Your task to perform on an android device: change the clock display to show seconds Image 0: 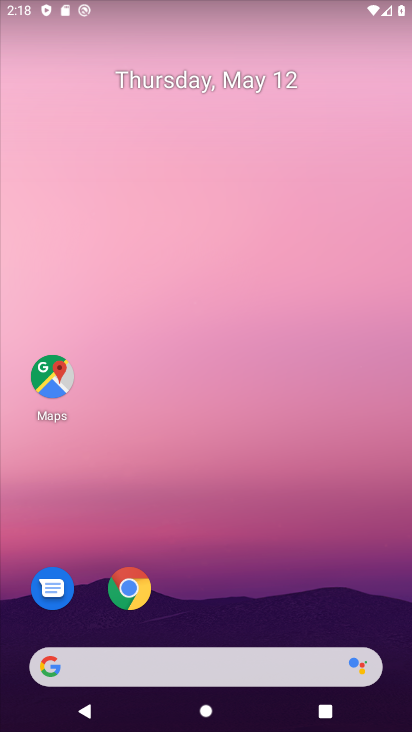
Step 0: drag from (286, 513) to (308, 0)
Your task to perform on an android device: change the clock display to show seconds Image 1: 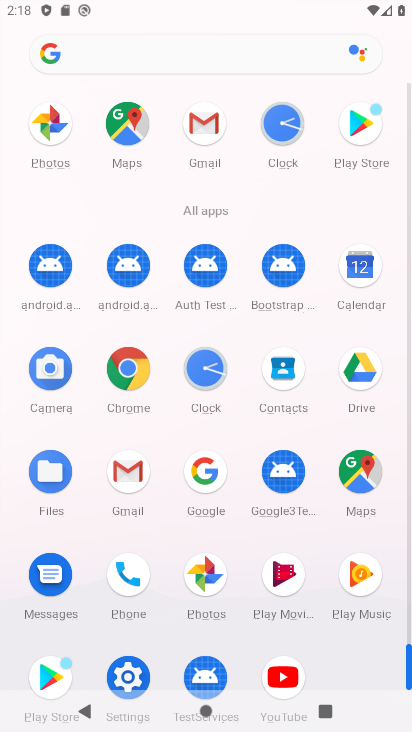
Step 1: click (281, 244)
Your task to perform on an android device: change the clock display to show seconds Image 2: 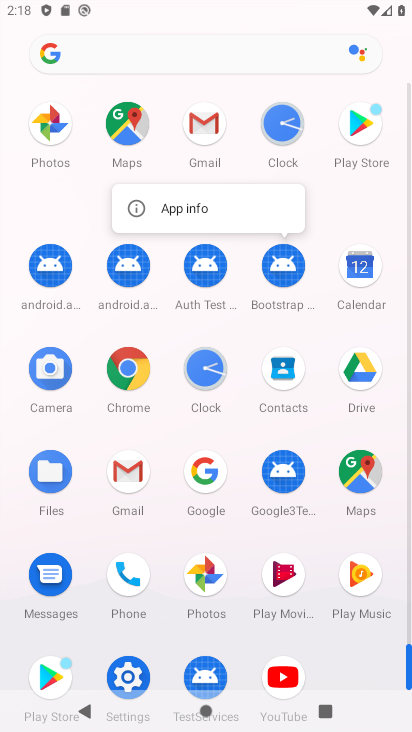
Step 2: click (270, 137)
Your task to perform on an android device: change the clock display to show seconds Image 3: 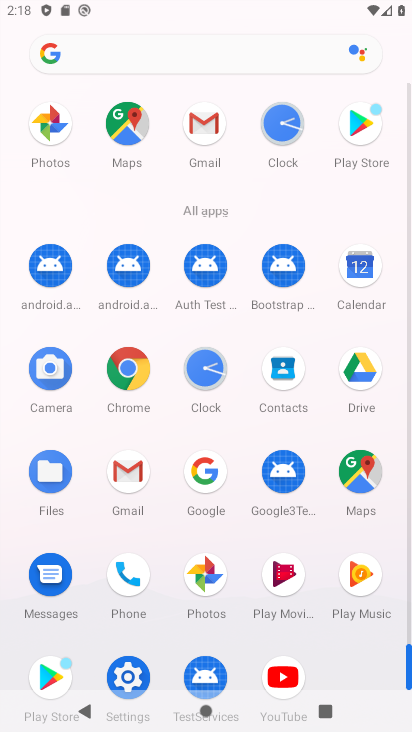
Step 3: click (281, 130)
Your task to perform on an android device: change the clock display to show seconds Image 4: 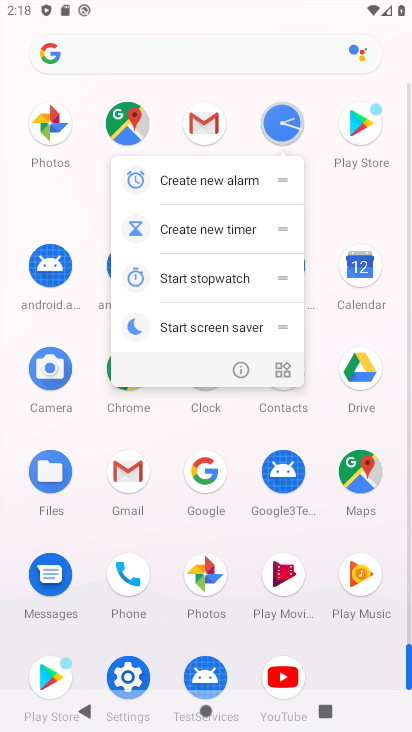
Step 4: click (281, 129)
Your task to perform on an android device: change the clock display to show seconds Image 5: 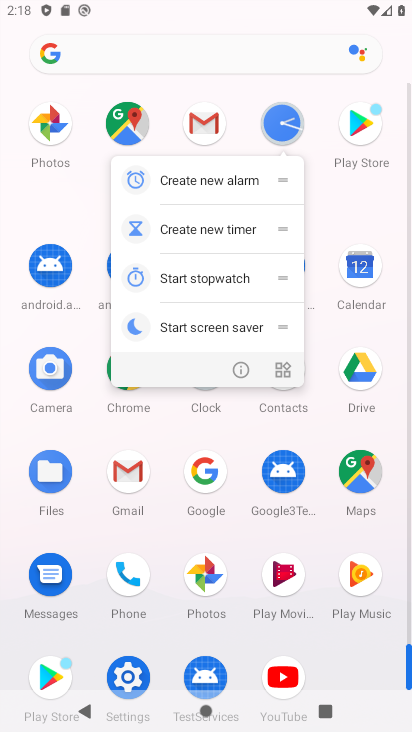
Step 5: click (281, 128)
Your task to perform on an android device: change the clock display to show seconds Image 6: 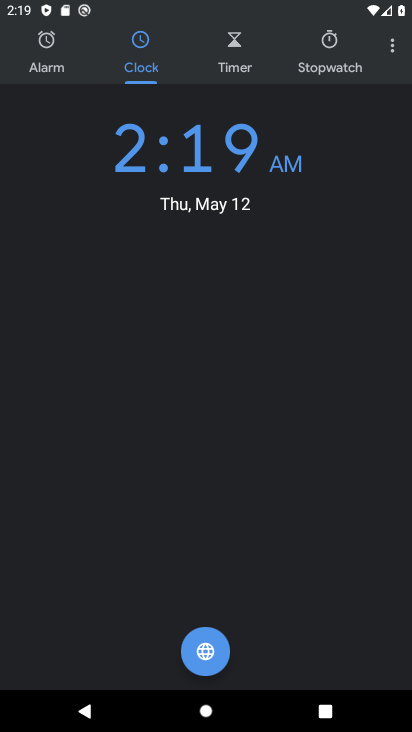
Step 6: click (398, 52)
Your task to perform on an android device: change the clock display to show seconds Image 7: 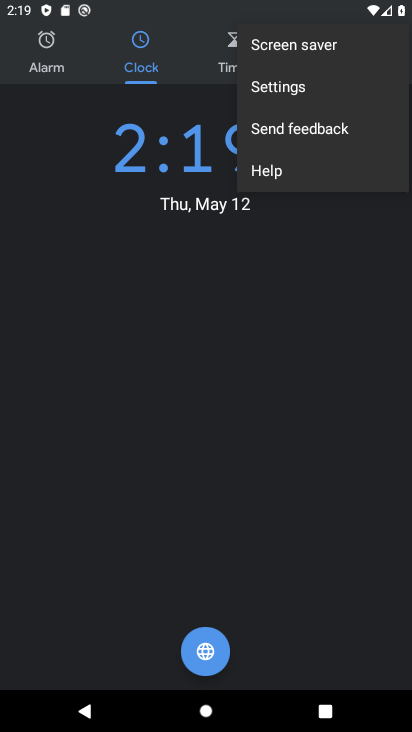
Step 7: click (311, 97)
Your task to perform on an android device: change the clock display to show seconds Image 8: 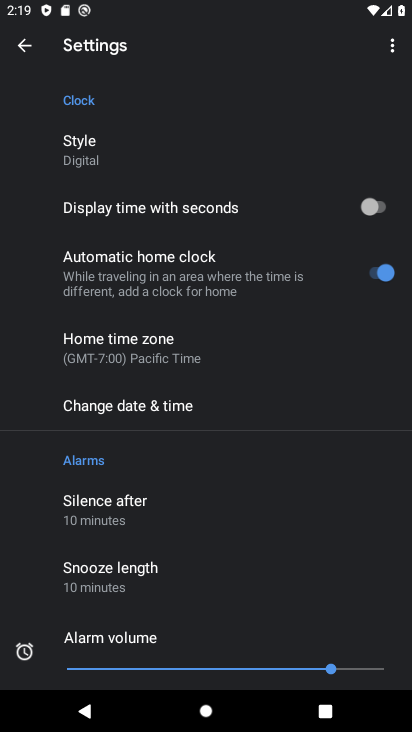
Step 8: click (387, 221)
Your task to perform on an android device: change the clock display to show seconds Image 9: 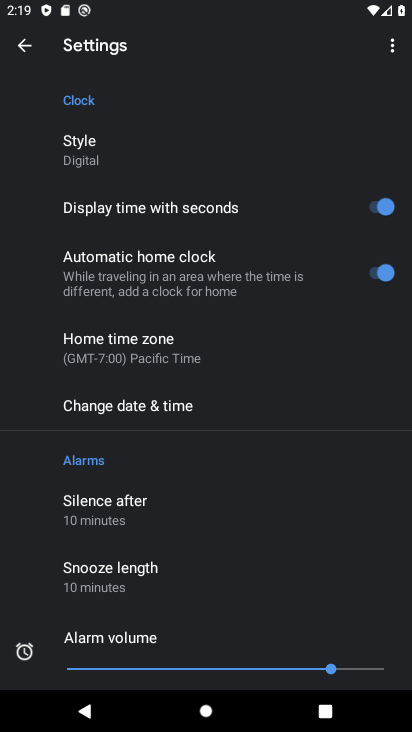
Step 9: task complete